Your task to perform on an android device: empty trash in the gmail app Image 0: 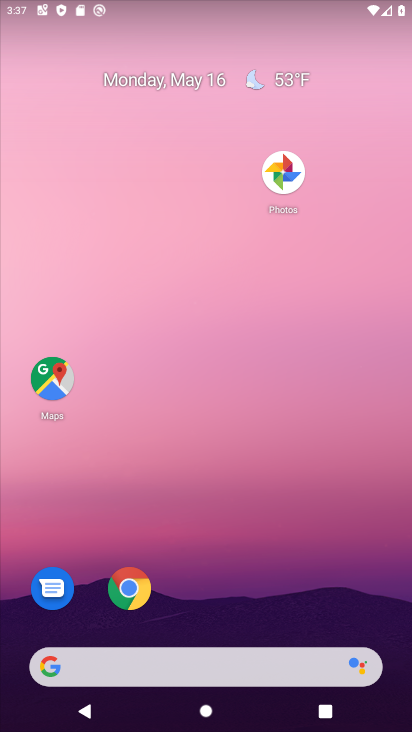
Step 0: drag from (198, 603) to (165, 120)
Your task to perform on an android device: empty trash in the gmail app Image 1: 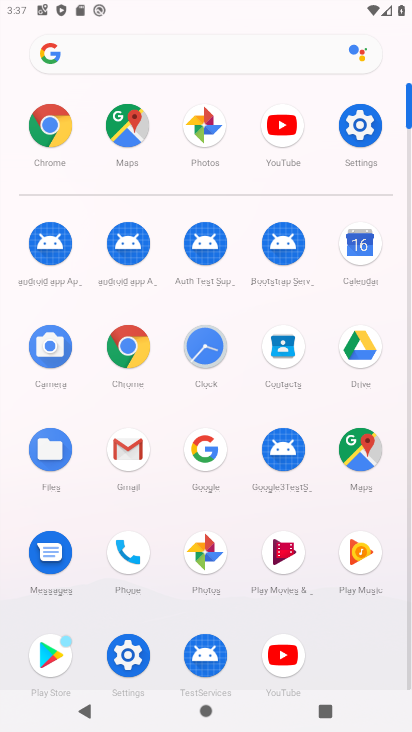
Step 1: click (116, 450)
Your task to perform on an android device: empty trash in the gmail app Image 2: 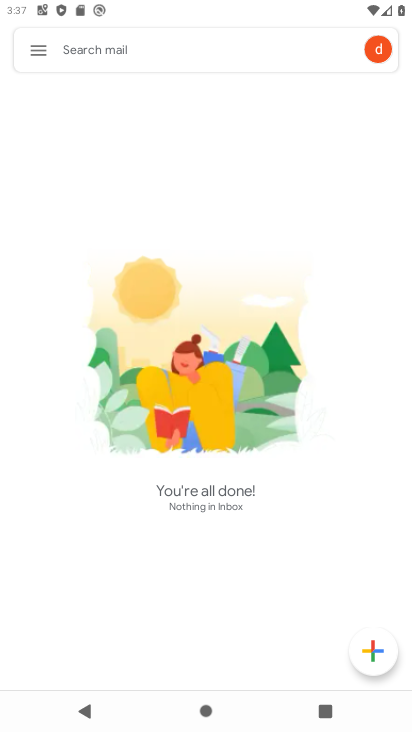
Step 2: click (36, 56)
Your task to perform on an android device: empty trash in the gmail app Image 3: 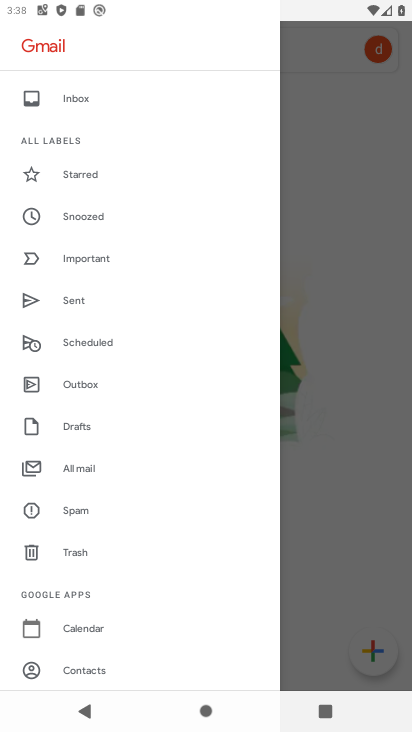
Step 3: click (65, 544)
Your task to perform on an android device: empty trash in the gmail app Image 4: 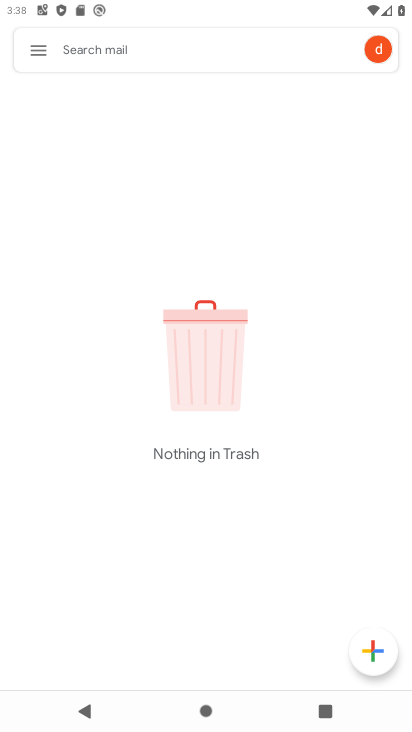
Step 4: task complete